Your task to perform on an android device: turn off priority inbox in the gmail app Image 0: 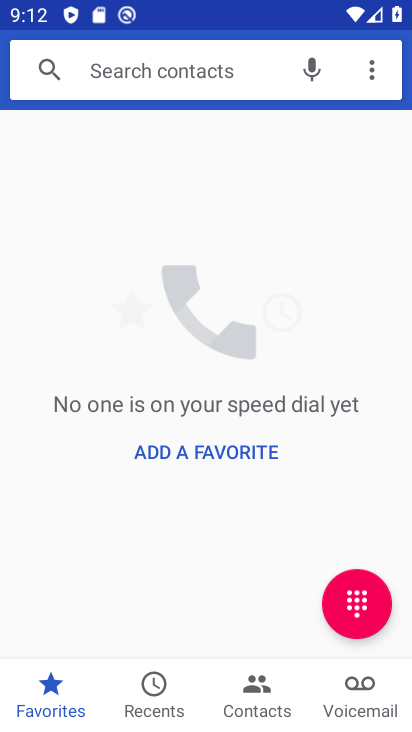
Step 0: press home button
Your task to perform on an android device: turn off priority inbox in the gmail app Image 1: 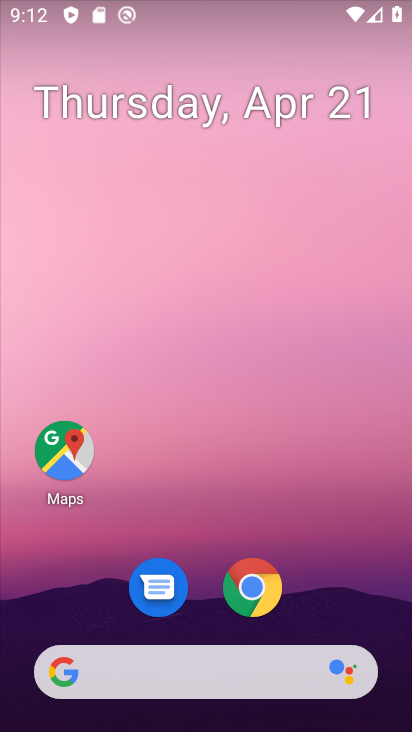
Step 1: drag from (375, 603) to (381, 190)
Your task to perform on an android device: turn off priority inbox in the gmail app Image 2: 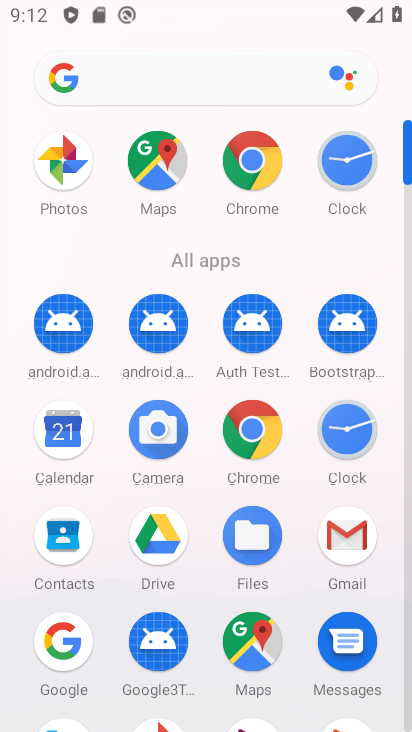
Step 2: click (342, 545)
Your task to perform on an android device: turn off priority inbox in the gmail app Image 3: 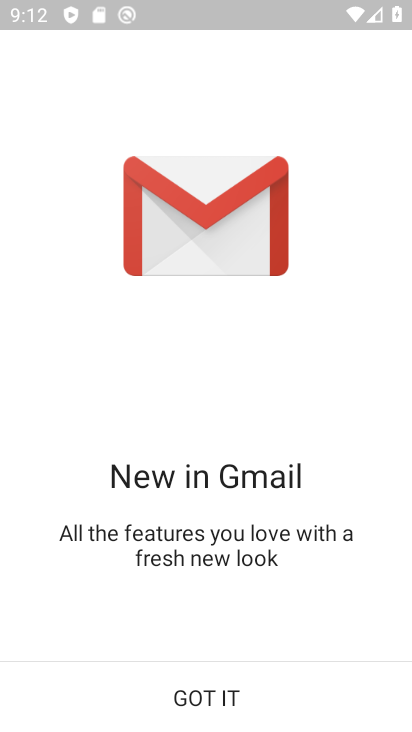
Step 3: click (208, 712)
Your task to perform on an android device: turn off priority inbox in the gmail app Image 4: 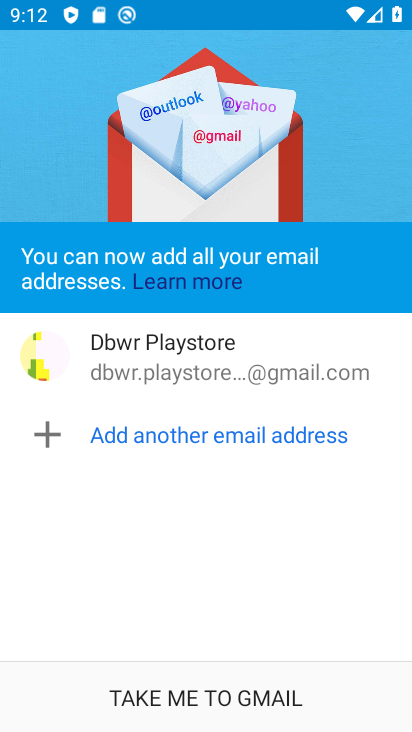
Step 4: click (230, 697)
Your task to perform on an android device: turn off priority inbox in the gmail app Image 5: 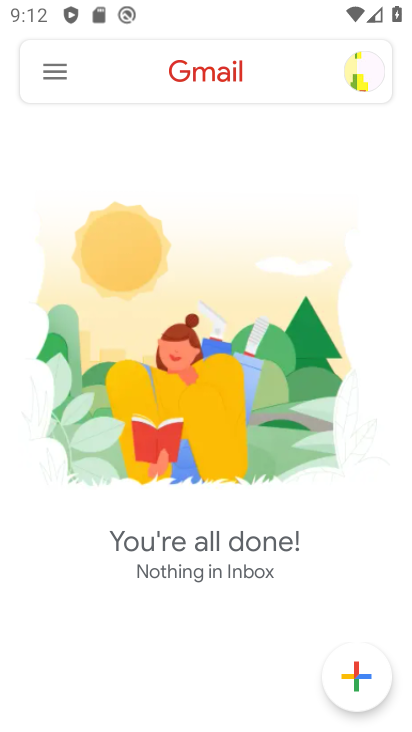
Step 5: click (57, 88)
Your task to perform on an android device: turn off priority inbox in the gmail app Image 6: 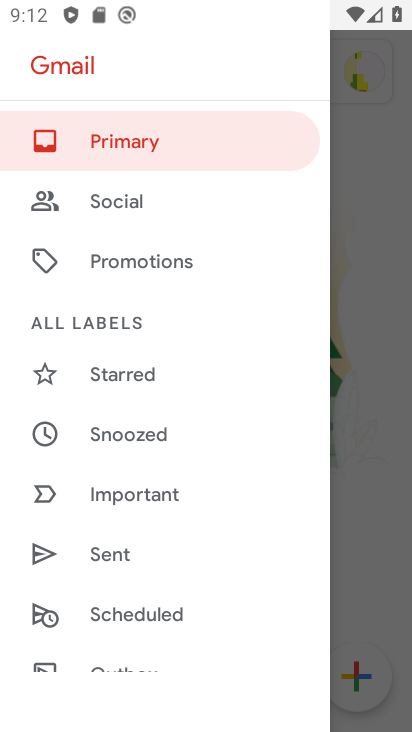
Step 6: drag from (199, 538) to (218, 235)
Your task to perform on an android device: turn off priority inbox in the gmail app Image 7: 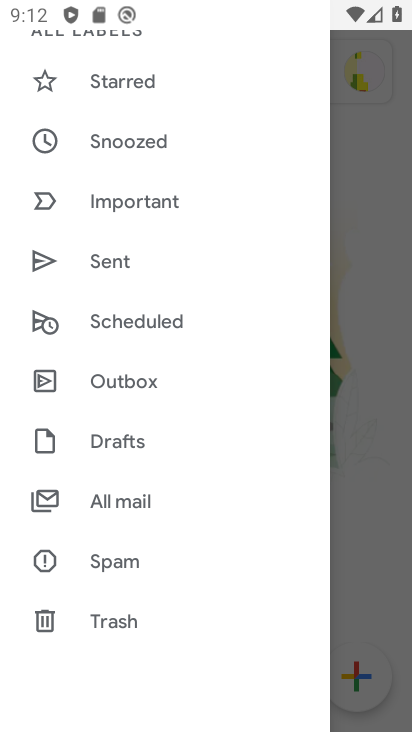
Step 7: drag from (185, 573) to (232, 257)
Your task to perform on an android device: turn off priority inbox in the gmail app Image 8: 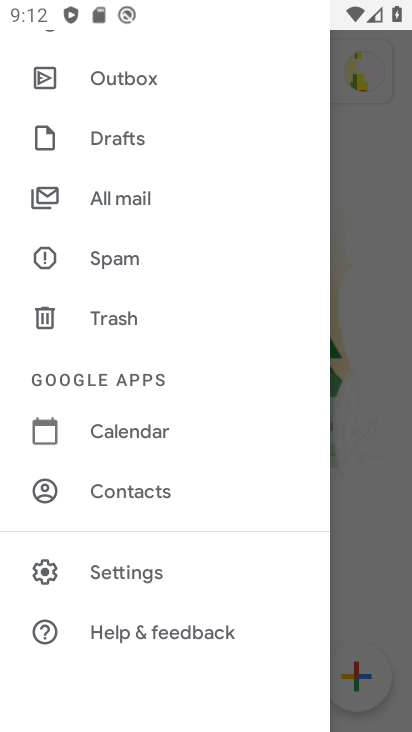
Step 8: click (148, 579)
Your task to perform on an android device: turn off priority inbox in the gmail app Image 9: 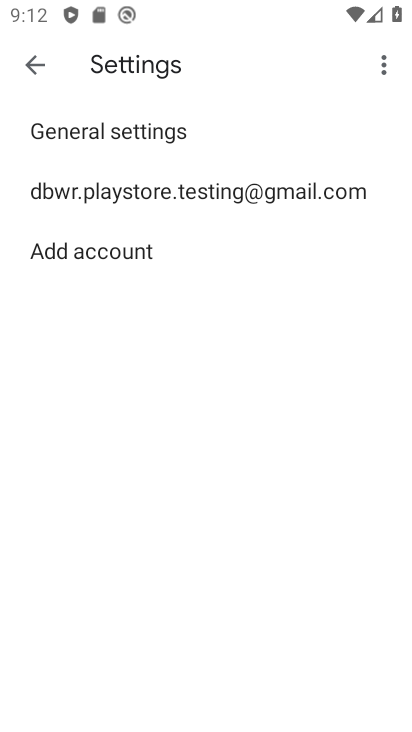
Step 9: click (273, 189)
Your task to perform on an android device: turn off priority inbox in the gmail app Image 10: 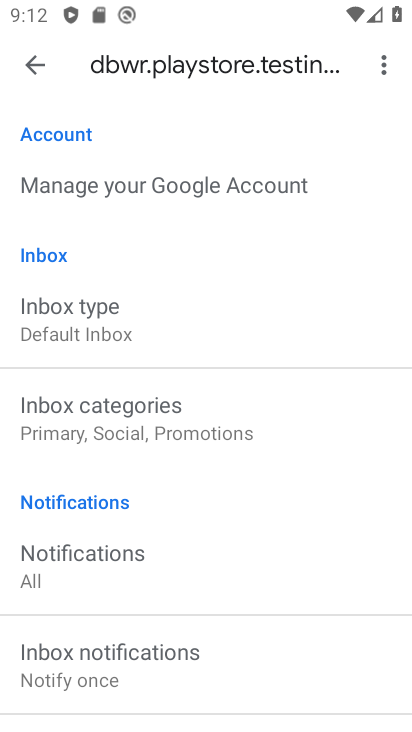
Step 10: click (122, 325)
Your task to perform on an android device: turn off priority inbox in the gmail app Image 11: 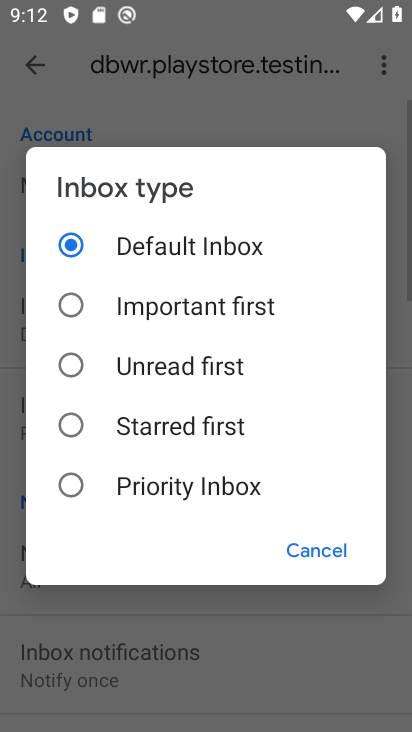
Step 11: task complete